Your task to perform on an android device: turn on improve location accuracy Image 0: 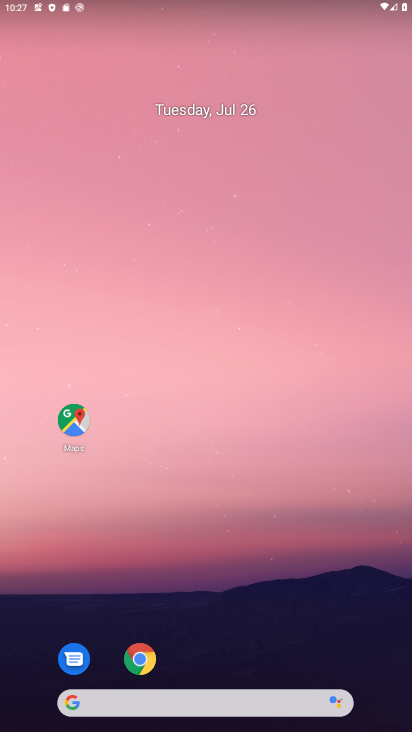
Step 0: press home button
Your task to perform on an android device: turn on improve location accuracy Image 1: 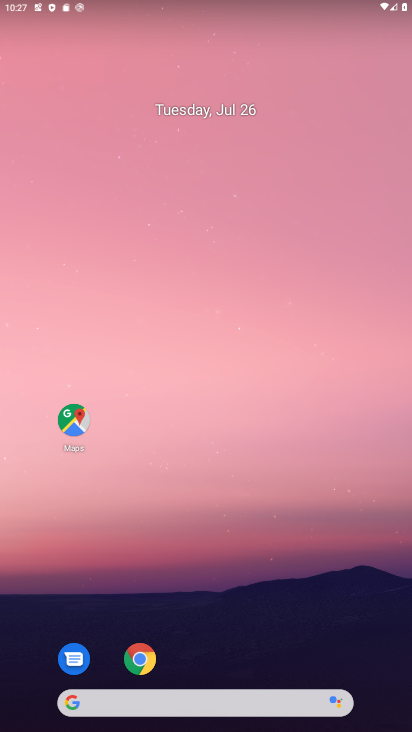
Step 1: drag from (353, 618) to (28, 507)
Your task to perform on an android device: turn on improve location accuracy Image 2: 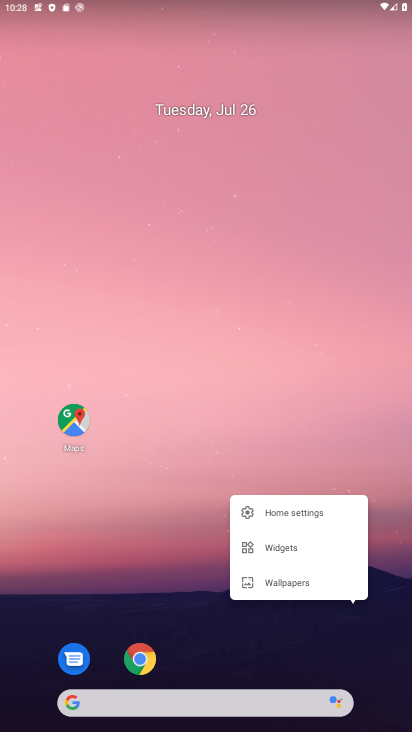
Step 2: click (177, 592)
Your task to perform on an android device: turn on improve location accuracy Image 3: 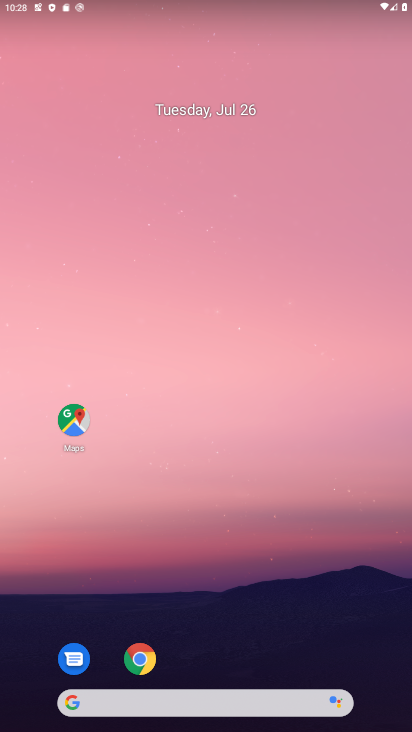
Step 3: drag from (268, 669) to (244, 163)
Your task to perform on an android device: turn on improve location accuracy Image 4: 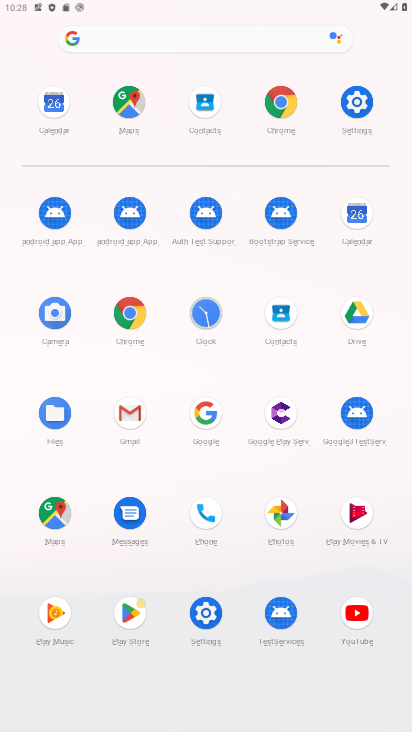
Step 4: click (203, 615)
Your task to perform on an android device: turn on improve location accuracy Image 5: 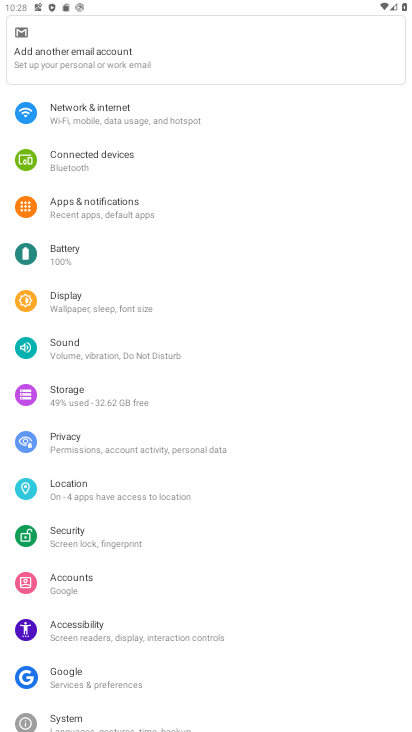
Step 5: click (48, 501)
Your task to perform on an android device: turn on improve location accuracy Image 6: 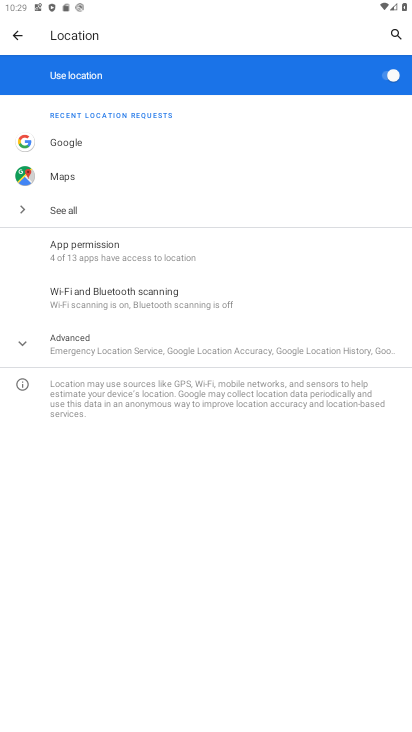
Step 6: click (73, 327)
Your task to perform on an android device: turn on improve location accuracy Image 7: 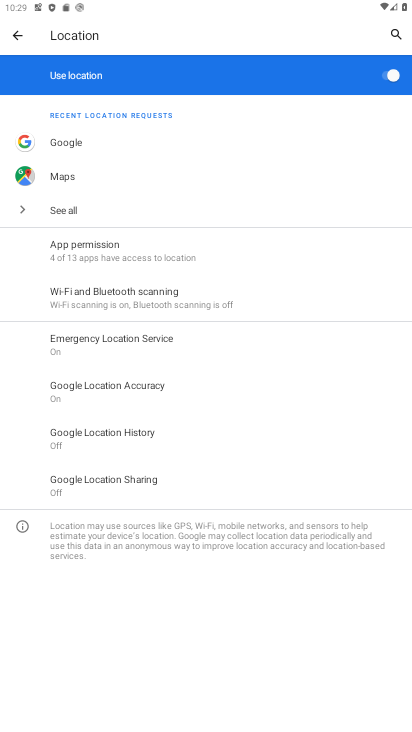
Step 7: click (65, 387)
Your task to perform on an android device: turn on improve location accuracy Image 8: 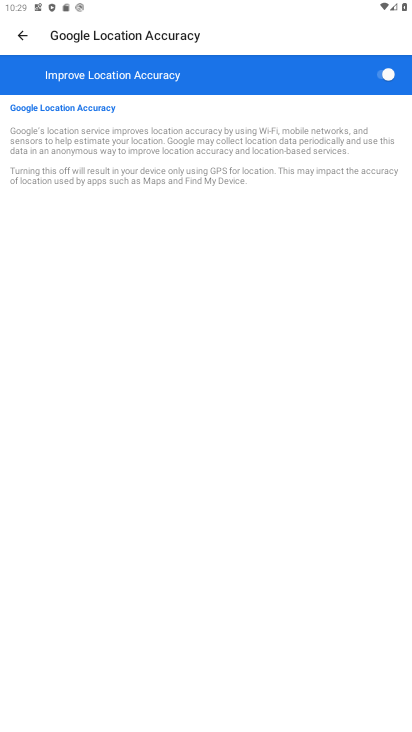
Step 8: task complete